Your task to perform on an android device: Do I have any events tomorrow? Image 0: 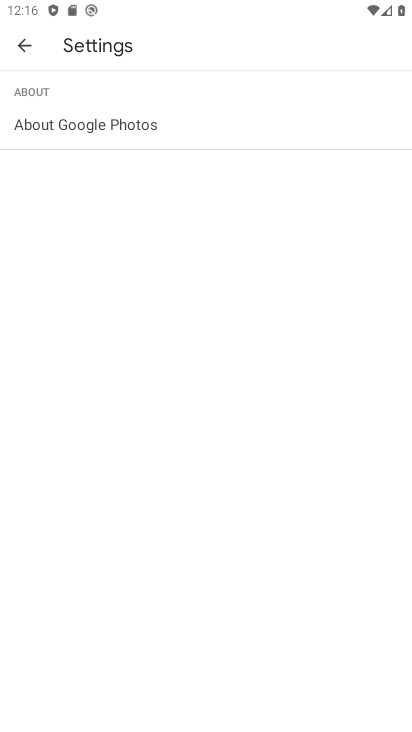
Step 0: press home button
Your task to perform on an android device: Do I have any events tomorrow? Image 1: 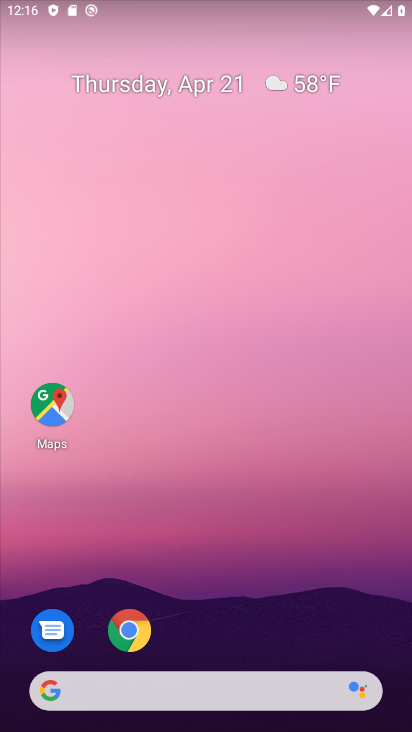
Step 1: drag from (194, 680) to (315, 162)
Your task to perform on an android device: Do I have any events tomorrow? Image 2: 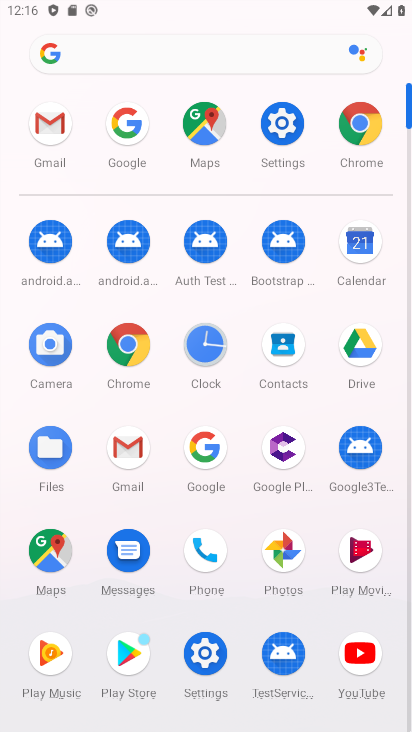
Step 2: click (361, 242)
Your task to perform on an android device: Do I have any events tomorrow? Image 3: 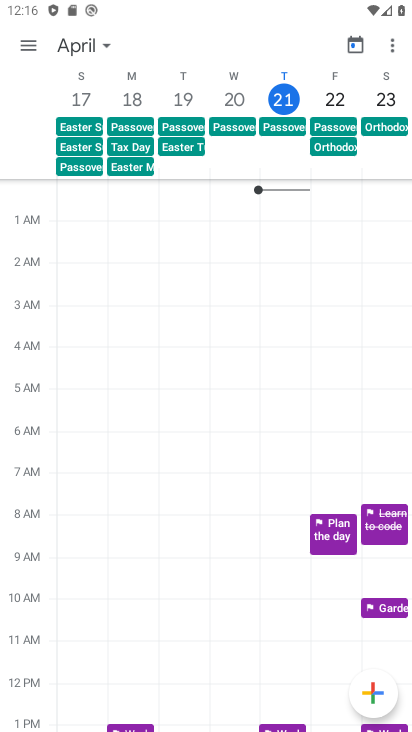
Step 3: click (83, 41)
Your task to perform on an android device: Do I have any events tomorrow? Image 4: 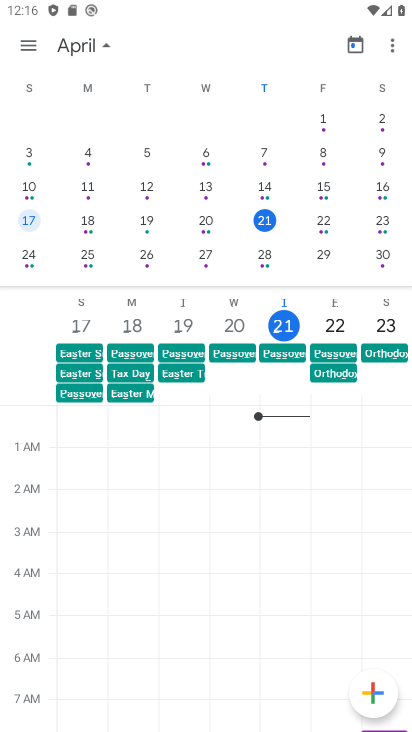
Step 4: click (325, 226)
Your task to perform on an android device: Do I have any events tomorrow? Image 5: 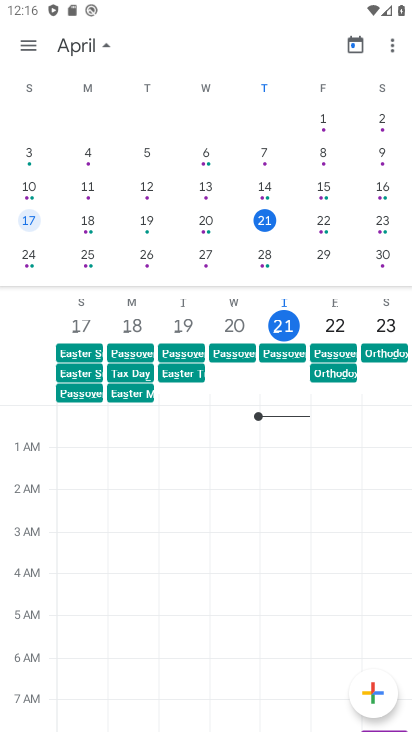
Step 5: click (324, 220)
Your task to perform on an android device: Do I have any events tomorrow? Image 6: 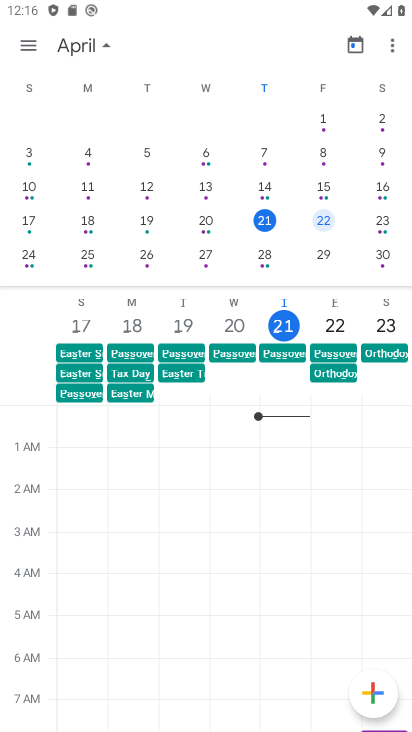
Step 6: click (34, 41)
Your task to perform on an android device: Do I have any events tomorrow? Image 7: 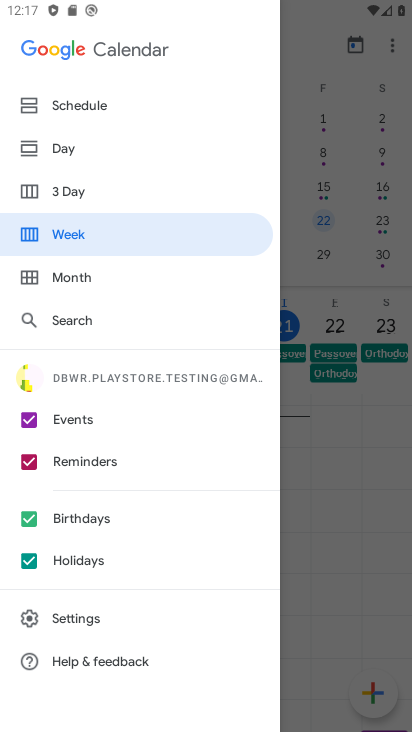
Step 7: click (80, 104)
Your task to perform on an android device: Do I have any events tomorrow? Image 8: 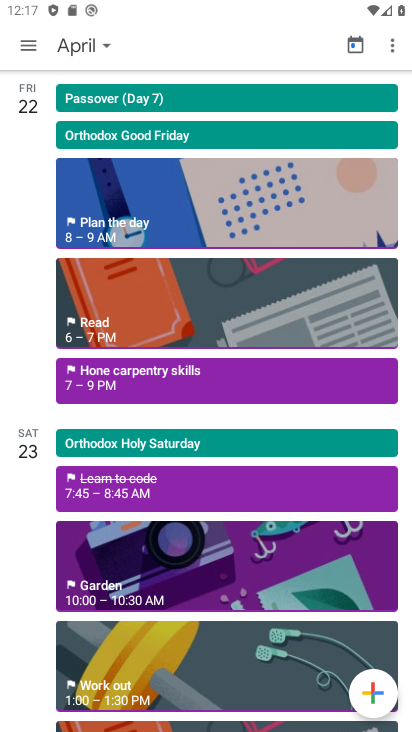
Step 8: click (141, 380)
Your task to perform on an android device: Do I have any events tomorrow? Image 9: 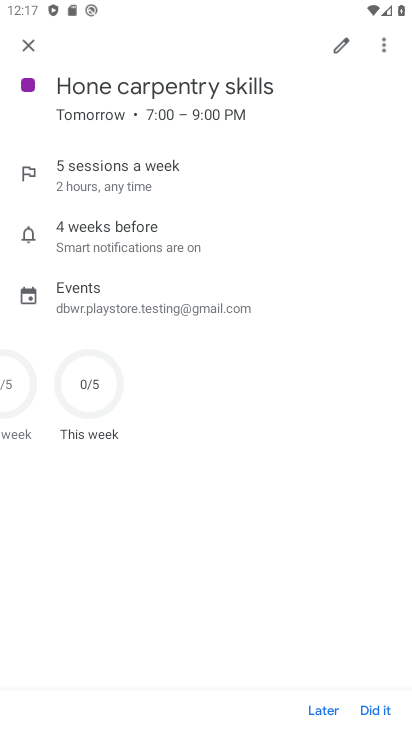
Step 9: task complete